Your task to perform on an android device: Go to Yahoo.com Image 0: 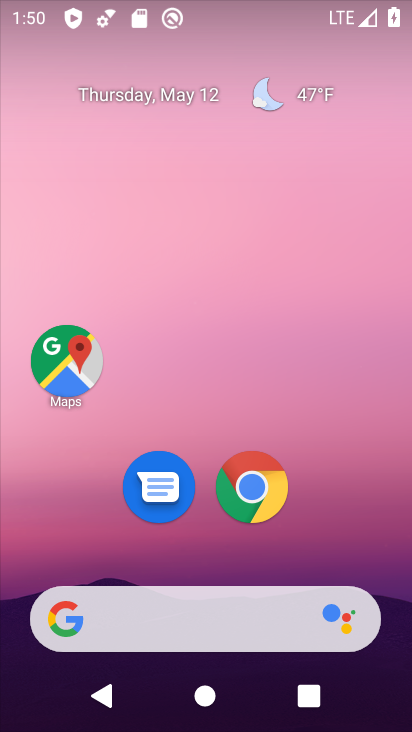
Step 0: click (261, 483)
Your task to perform on an android device: Go to Yahoo.com Image 1: 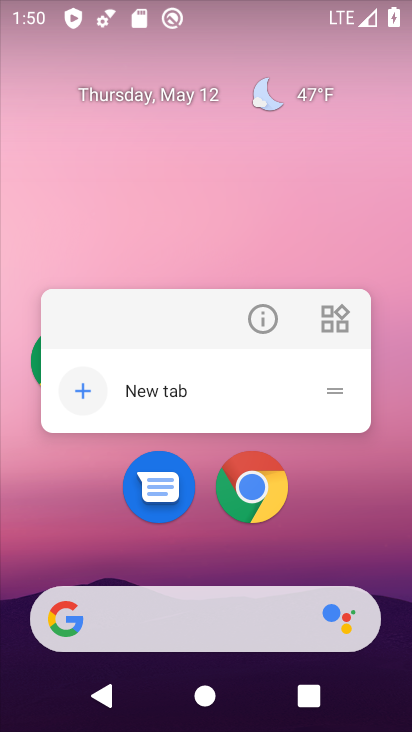
Step 1: click (255, 496)
Your task to perform on an android device: Go to Yahoo.com Image 2: 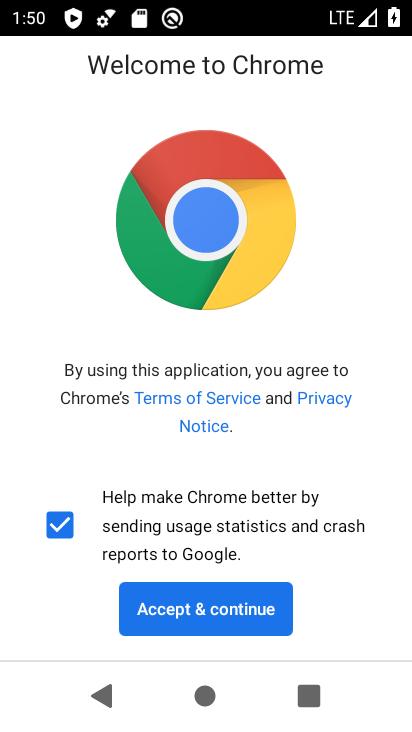
Step 2: click (188, 616)
Your task to perform on an android device: Go to Yahoo.com Image 3: 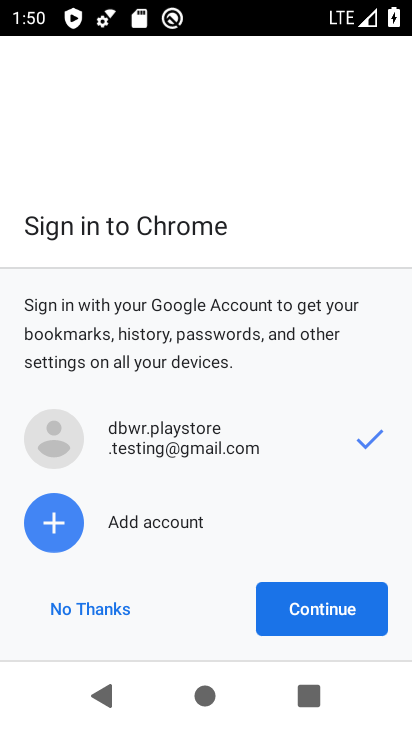
Step 3: click (268, 595)
Your task to perform on an android device: Go to Yahoo.com Image 4: 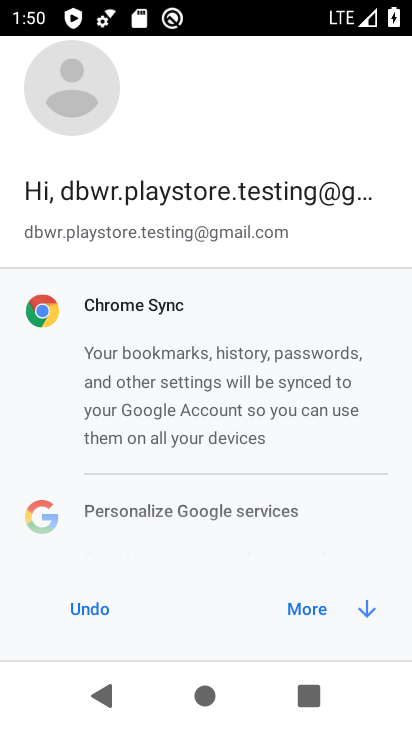
Step 4: click (297, 608)
Your task to perform on an android device: Go to Yahoo.com Image 5: 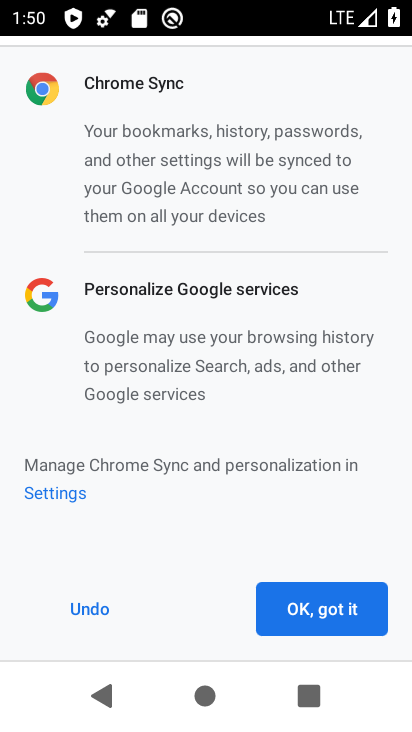
Step 5: click (297, 608)
Your task to perform on an android device: Go to Yahoo.com Image 6: 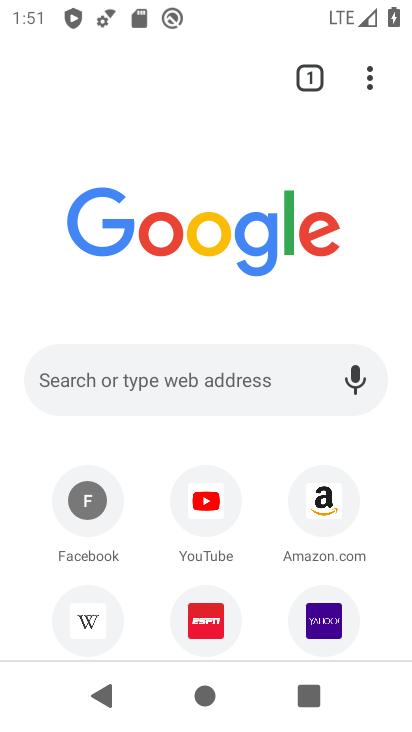
Step 6: click (304, 647)
Your task to perform on an android device: Go to Yahoo.com Image 7: 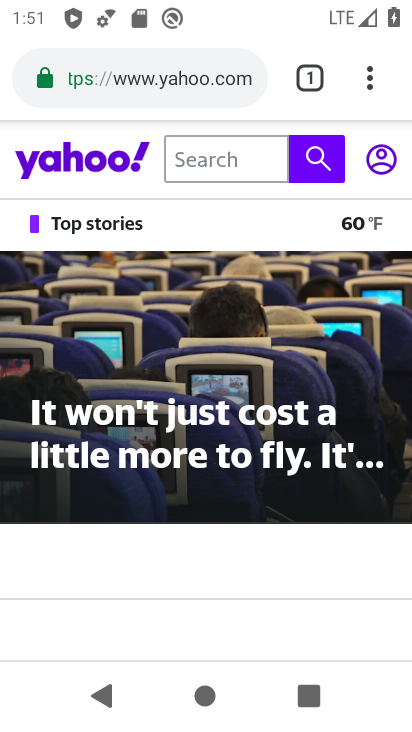
Step 7: task complete